Your task to perform on an android device: open sync settings in chrome Image 0: 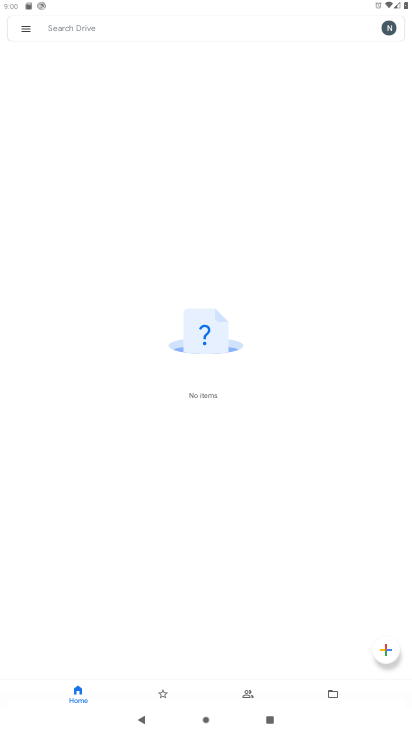
Step 0: press home button
Your task to perform on an android device: open sync settings in chrome Image 1: 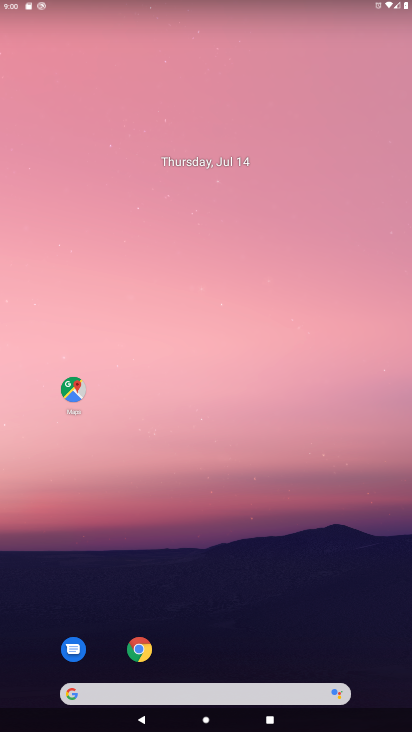
Step 1: click (142, 650)
Your task to perform on an android device: open sync settings in chrome Image 2: 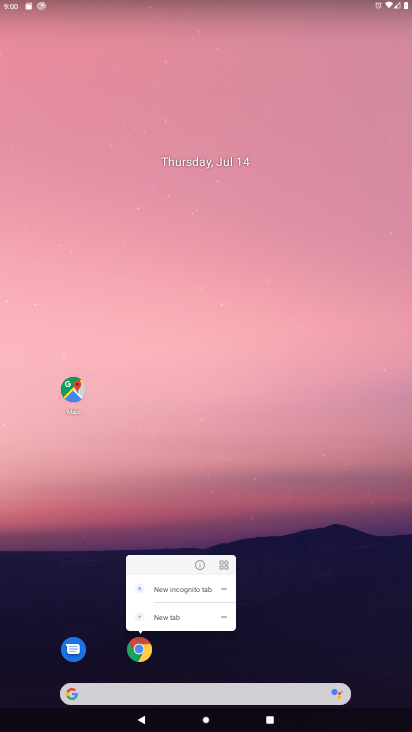
Step 2: click (141, 652)
Your task to perform on an android device: open sync settings in chrome Image 3: 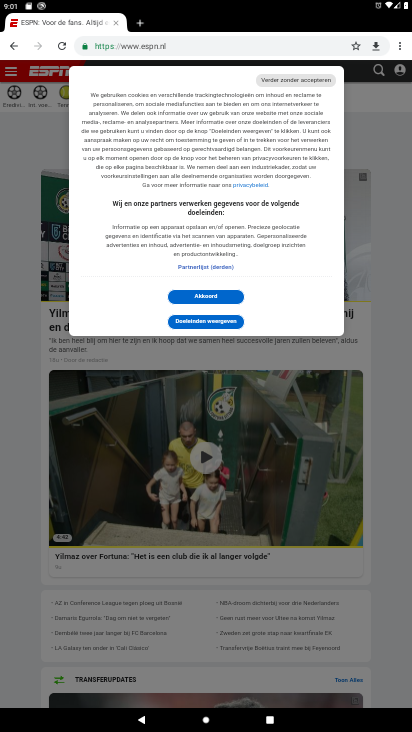
Step 3: click (400, 46)
Your task to perform on an android device: open sync settings in chrome Image 4: 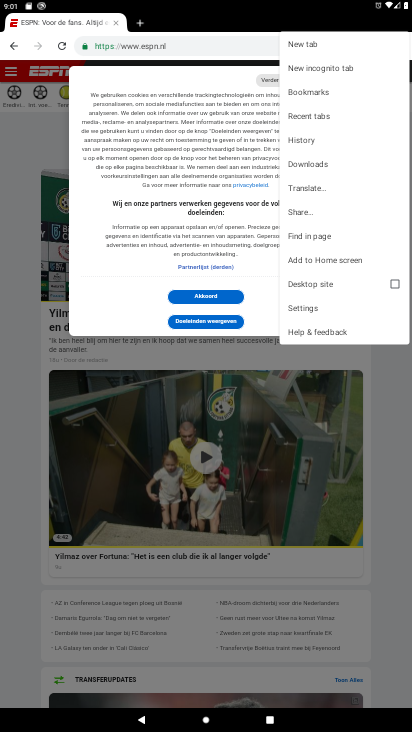
Step 4: click (299, 311)
Your task to perform on an android device: open sync settings in chrome Image 5: 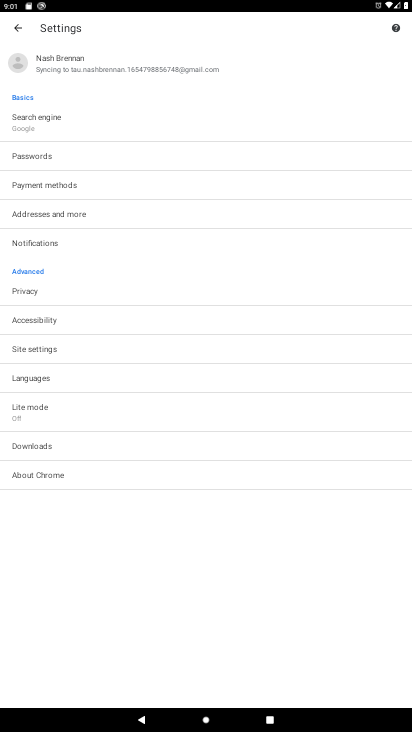
Step 5: click (101, 68)
Your task to perform on an android device: open sync settings in chrome Image 6: 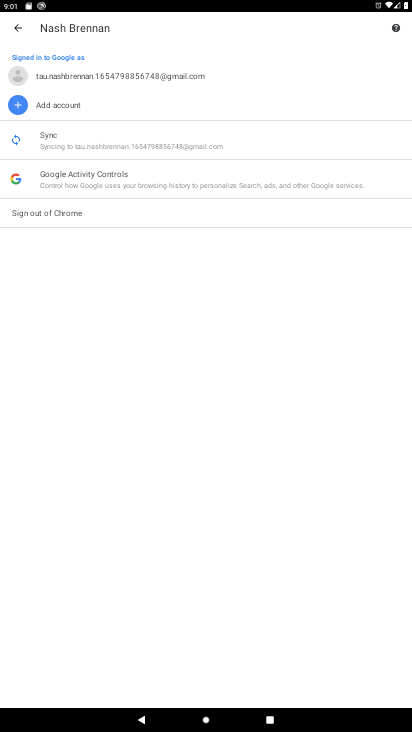
Step 6: click (92, 144)
Your task to perform on an android device: open sync settings in chrome Image 7: 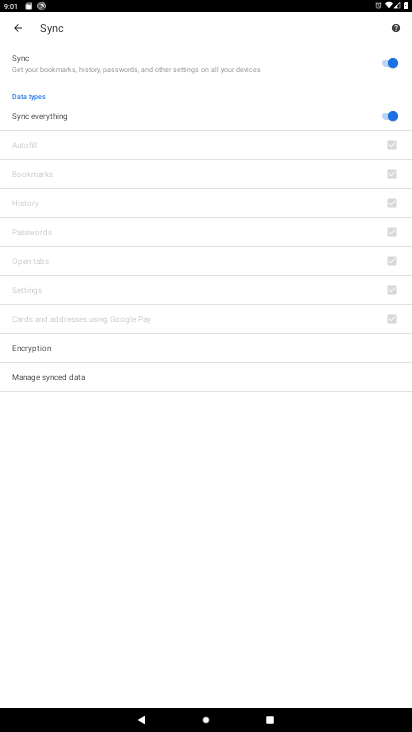
Step 7: task complete